Your task to perform on an android device: turn notification dots off Image 0: 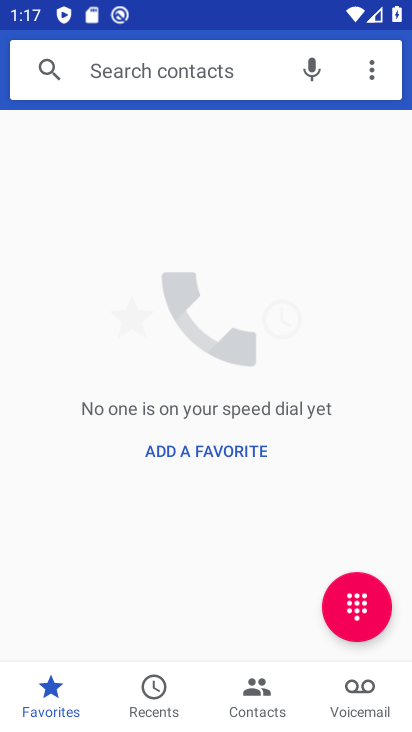
Step 0: click (232, 576)
Your task to perform on an android device: turn notification dots off Image 1: 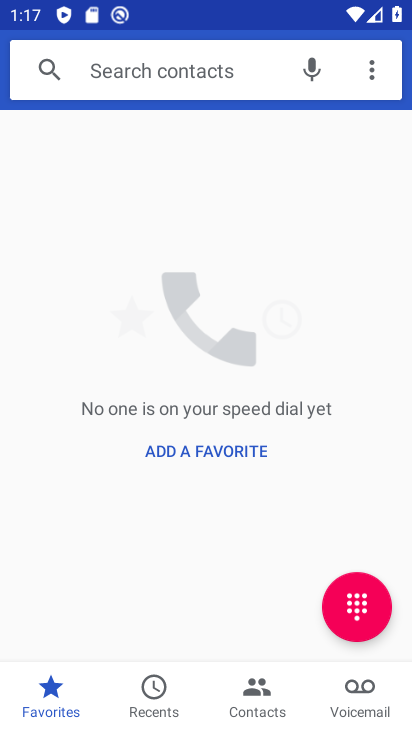
Step 1: press home button
Your task to perform on an android device: turn notification dots off Image 2: 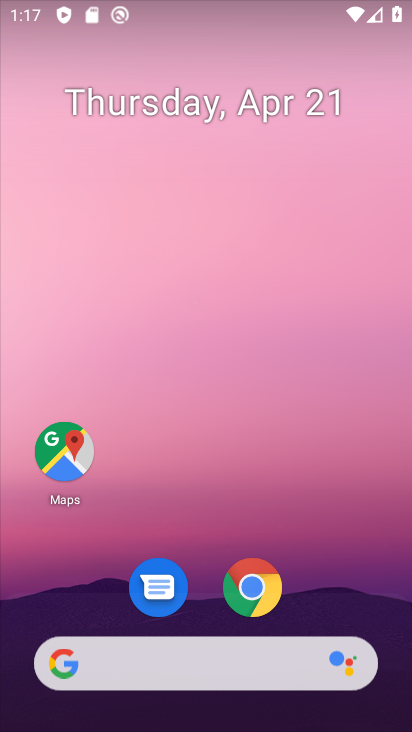
Step 2: drag from (205, 629) to (255, 52)
Your task to perform on an android device: turn notification dots off Image 3: 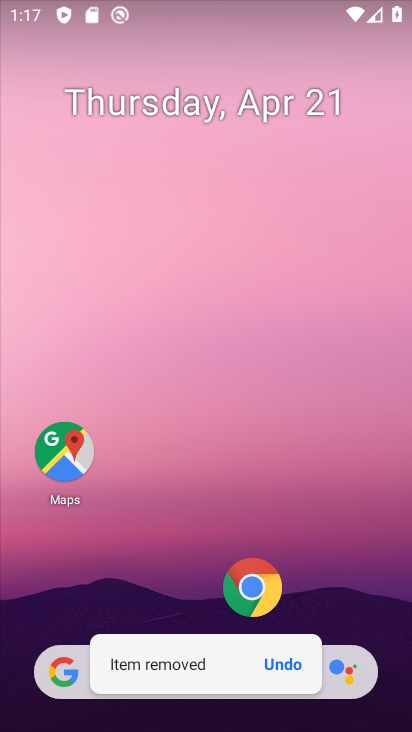
Step 3: click (326, 583)
Your task to perform on an android device: turn notification dots off Image 4: 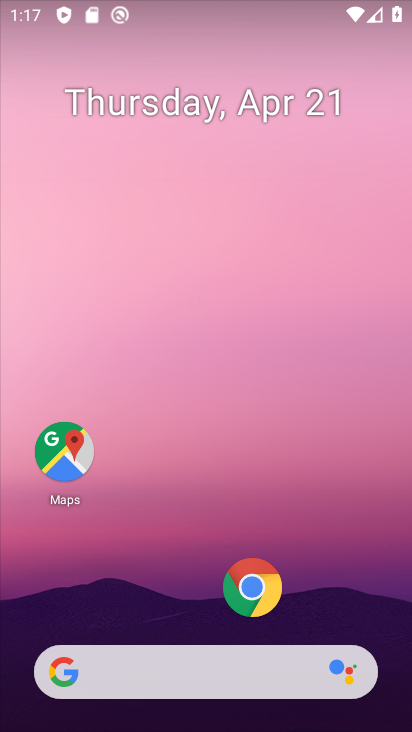
Step 4: drag from (330, 606) to (297, 47)
Your task to perform on an android device: turn notification dots off Image 5: 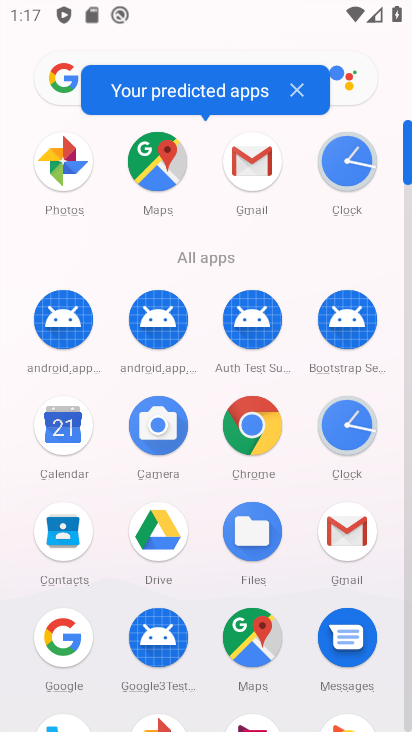
Step 5: drag from (306, 635) to (292, 234)
Your task to perform on an android device: turn notification dots off Image 6: 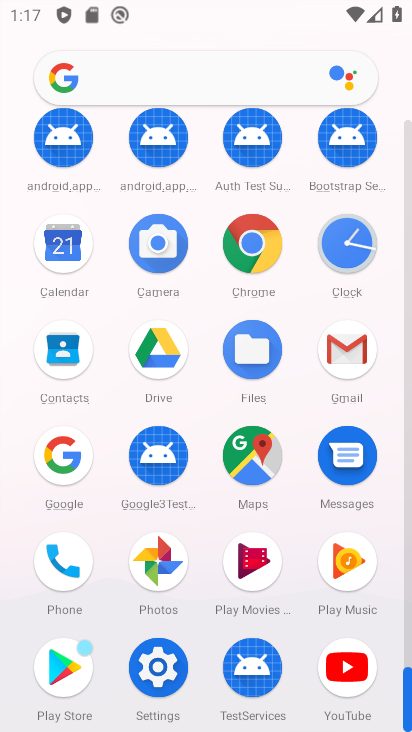
Step 6: click (165, 658)
Your task to perform on an android device: turn notification dots off Image 7: 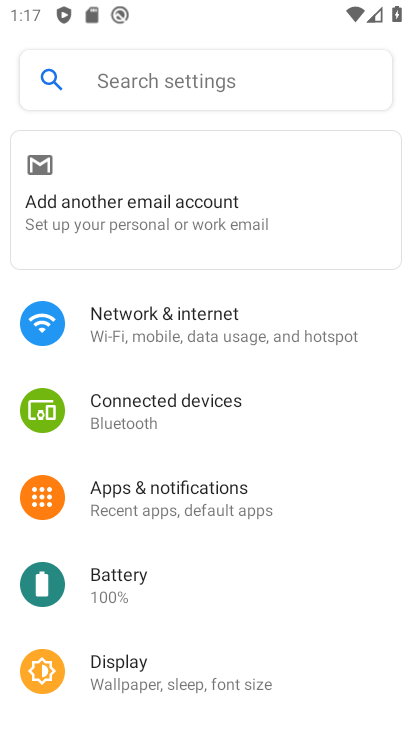
Step 7: click (235, 493)
Your task to perform on an android device: turn notification dots off Image 8: 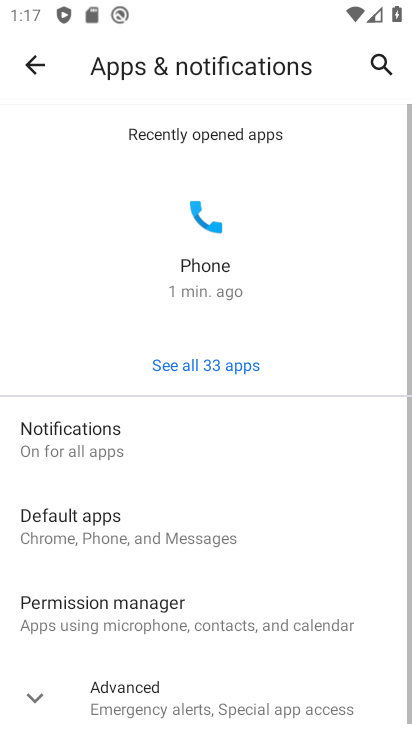
Step 8: drag from (310, 695) to (312, 303)
Your task to perform on an android device: turn notification dots off Image 9: 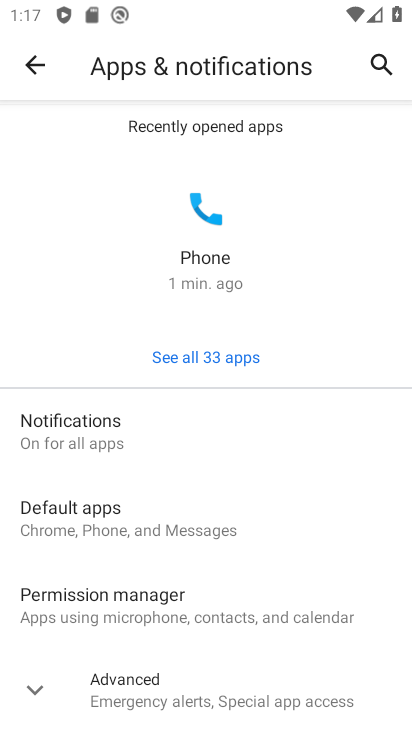
Step 9: click (97, 700)
Your task to perform on an android device: turn notification dots off Image 10: 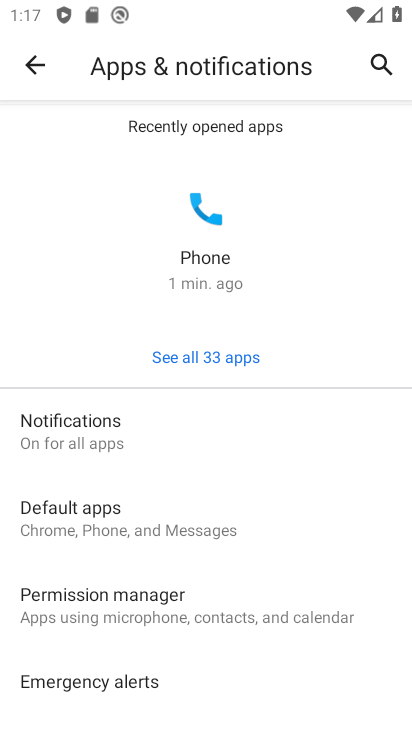
Step 10: drag from (294, 676) to (315, 340)
Your task to perform on an android device: turn notification dots off Image 11: 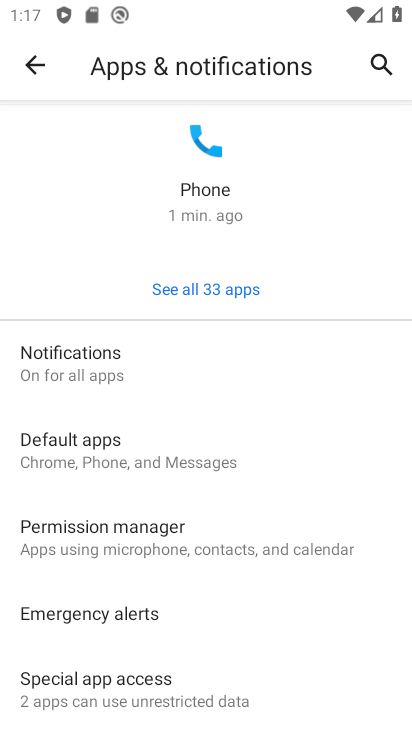
Step 11: click (174, 361)
Your task to perform on an android device: turn notification dots off Image 12: 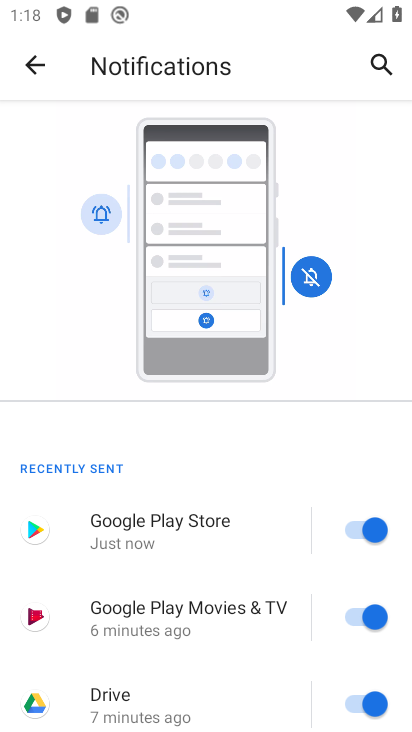
Step 12: drag from (260, 668) to (269, 215)
Your task to perform on an android device: turn notification dots off Image 13: 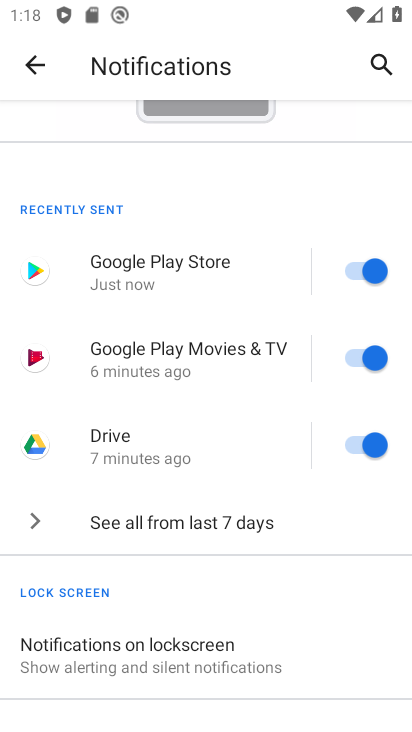
Step 13: drag from (265, 687) to (289, 288)
Your task to perform on an android device: turn notification dots off Image 14: 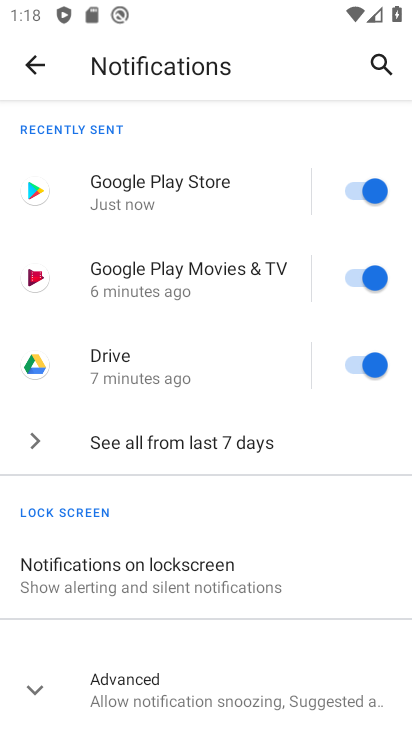
Step 14: click (176, 711)
Your task to perform on an android device: turn notification dots off Image 15: 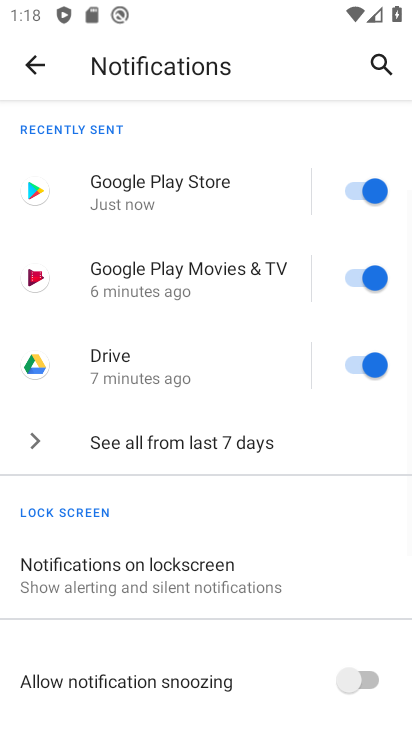
Step 15: drag from (236, 698) to (233, 345)
Your task to perform on an android device: turn notification dots off Image 16: 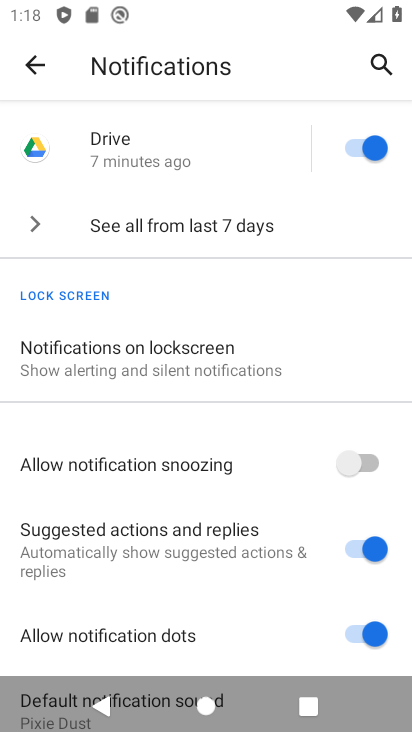
Step 16: click (354, 635)
Your task to perform on an android device: turn notification dots off Image 17: 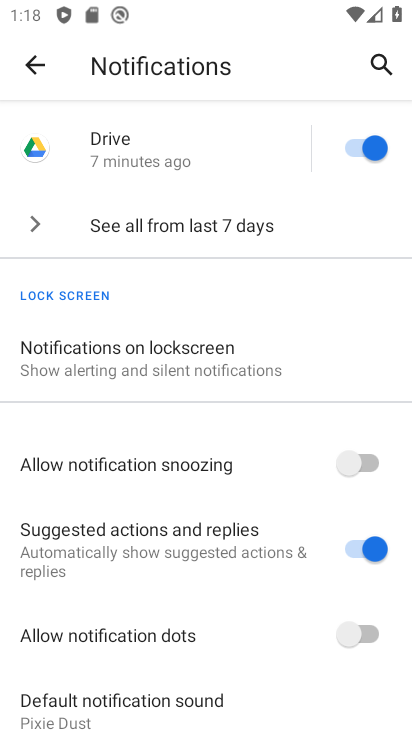
Step 17: task complete